Your task to perform on an android device: Open Maps and search for coffee Image 0: 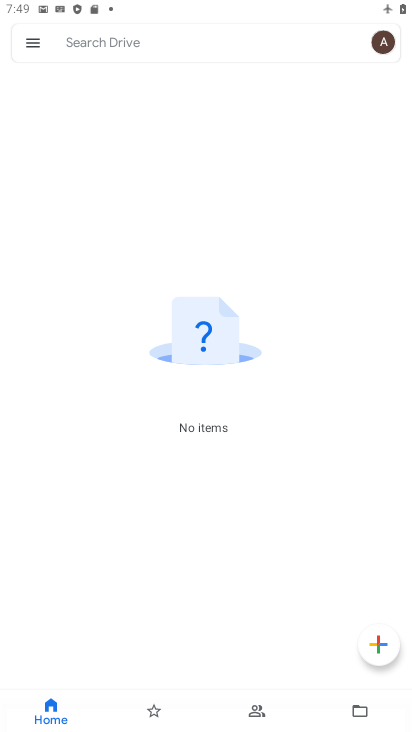
Step 0: press home button
Your task to perform on an android device: Open Maps and search for coffee Image 1: 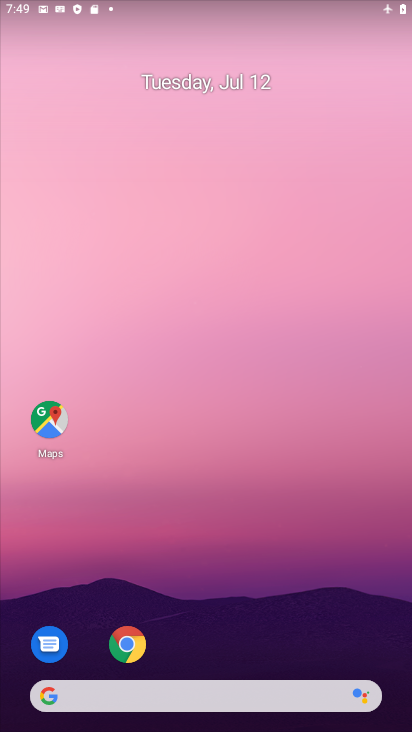
Step 1: click (50, 420)
Your task to perform on an android device: Open Maps and search for coffee Image 2: 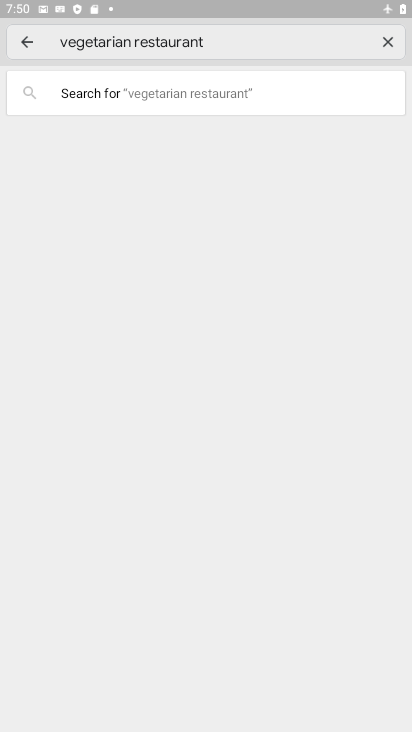
Step 2: click (381, 40)
Your task to perform on an android device: Open Maps and search for coffee Image 3: 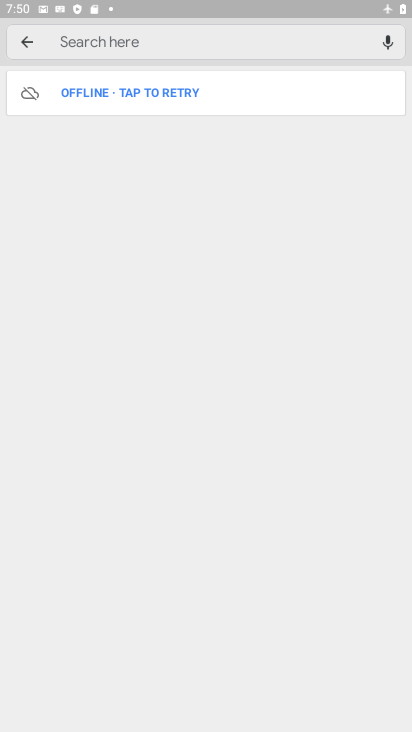
Step 3: click (210, 39)
Your task to perform on an android device: Open Maps and search for coffee Image 4: 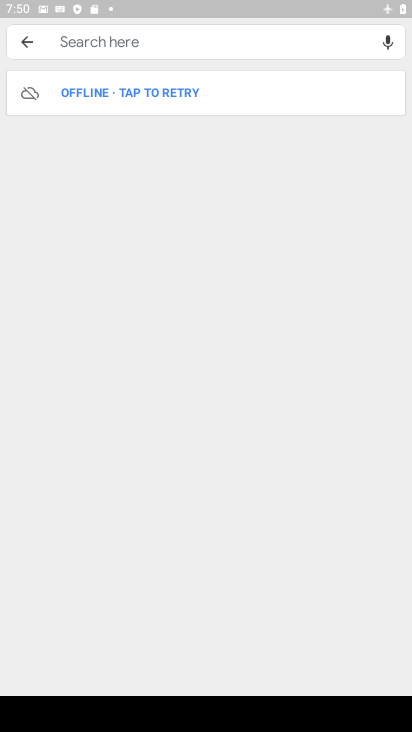
Step 4: type "coffee"
Your task to perform on an android device: Open Maps and search for coffee Image 5: 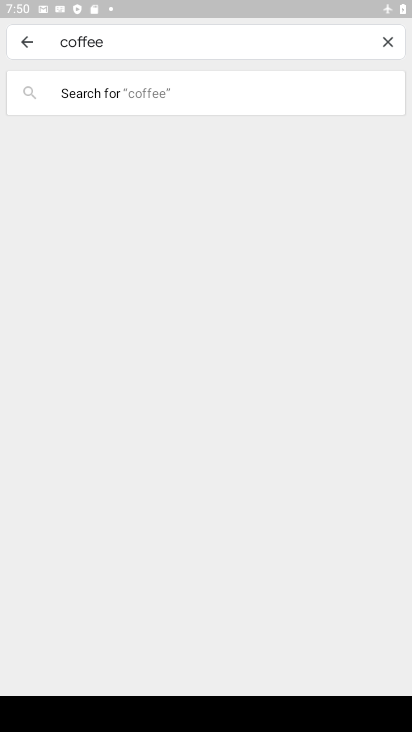
Step 5: task complete